Your task to perform on an android device: manage bookmarks in the chrome app Image 0: 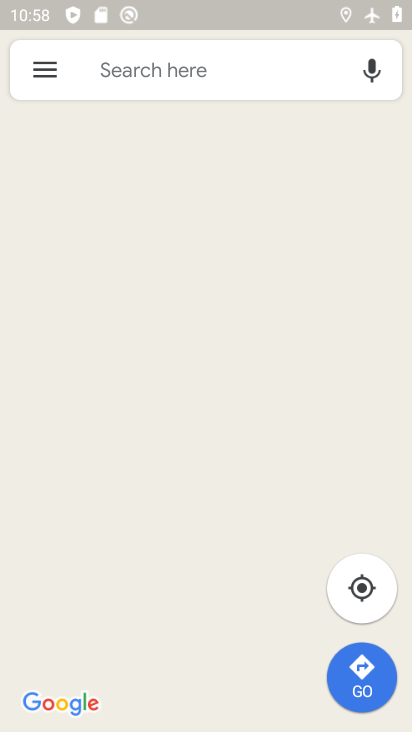
Step 0: press home button
Your task to perform on an android device: manage bookmarks in the chrome app Image 1: 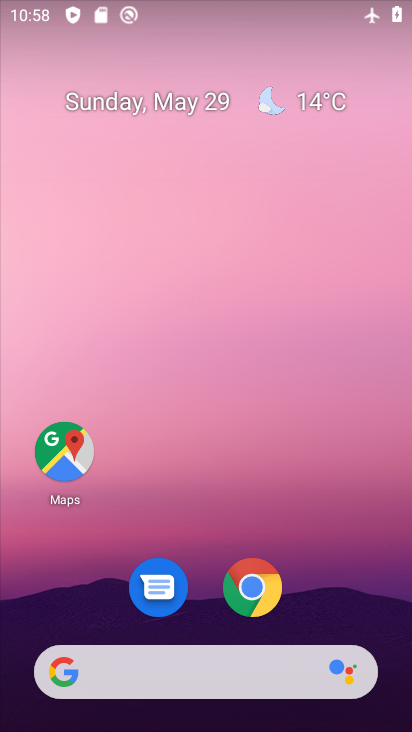
Step 1: drag from (333, 593) to (312, 194)
Your task to perform on an android device: manage bookmarks in the chrome app Image 2: 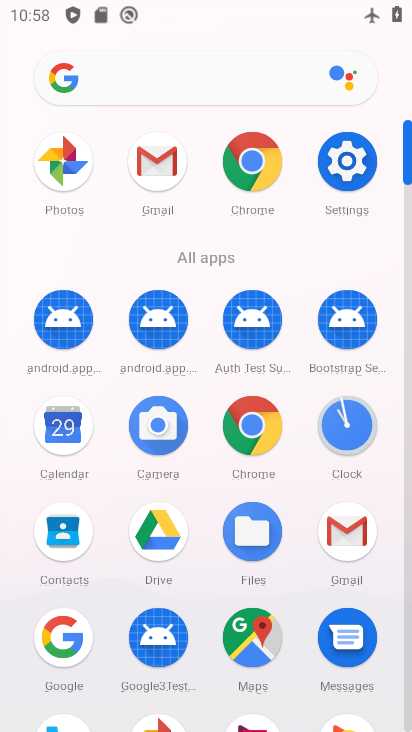
Step 2: click (272, 427)
Your task to perform on an android device: manage bookmarks in the chrome app Image 3: 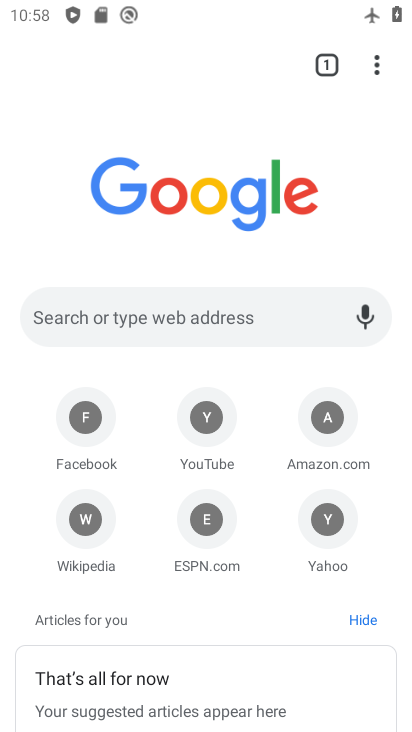
Step 3: task complete